Your task to perform on an android device: Search for sushi restaurants on Maps Image 0: 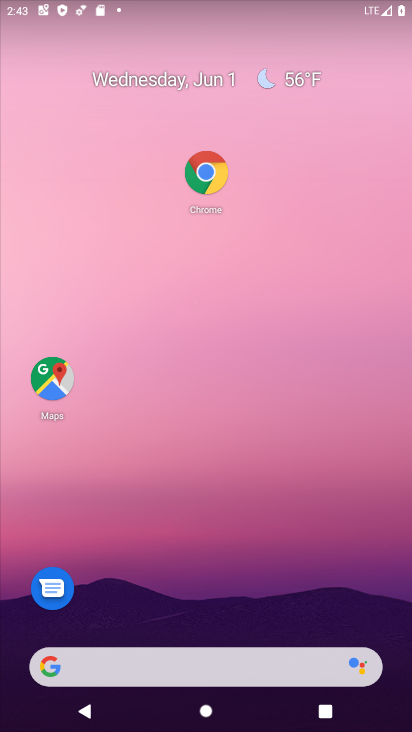
Step 0: drag from (230, 590) to (238, 59)
Your task to perform on an android device: Search for sushi restaurants on Maps Image 1: 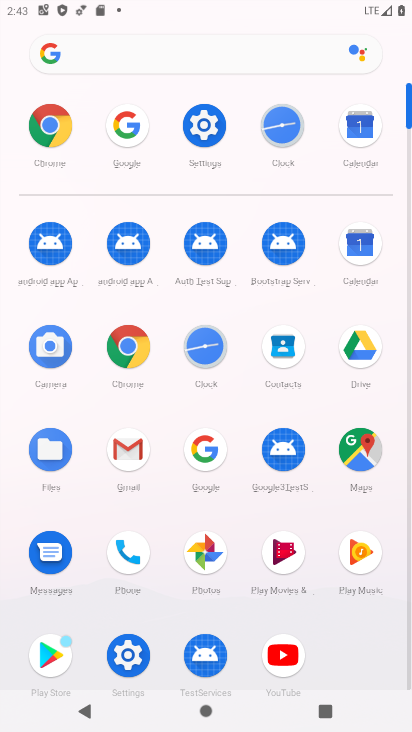
Step 1: click (354, 450)
Your task to perform on an android device: Search for sushi restaurants on Maps Image 2: 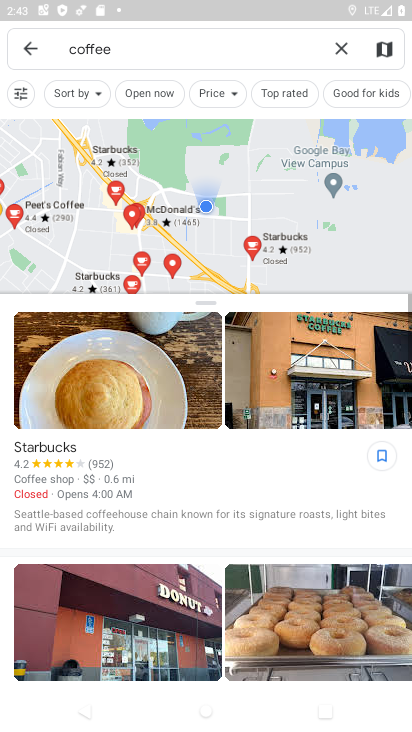
Step 2: click (342, 49)
Your task to perform on an android device: Search for sushi restaurants on Maps Image 3: 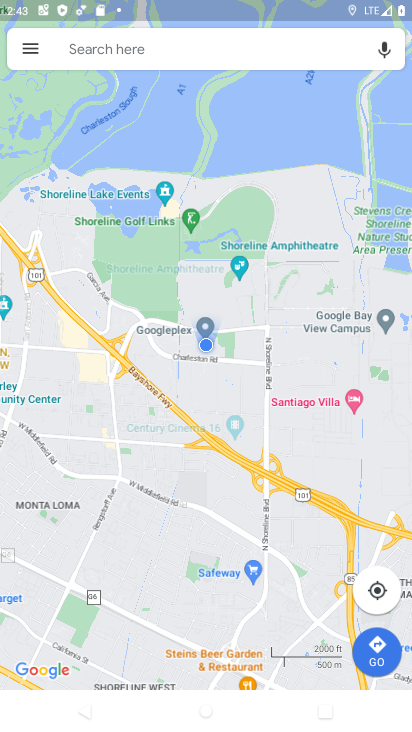
Step 3: click (222, 63)
Your task to perform on an android device: Search for sushi restaurants on Maps Image 4: 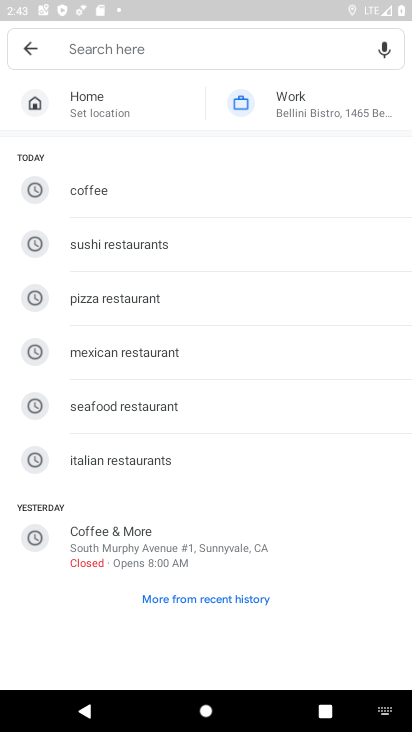
Step 4: click (133, 245)
Your task to perform on an android device: Search for sushi restaurants on Maps Image 5: 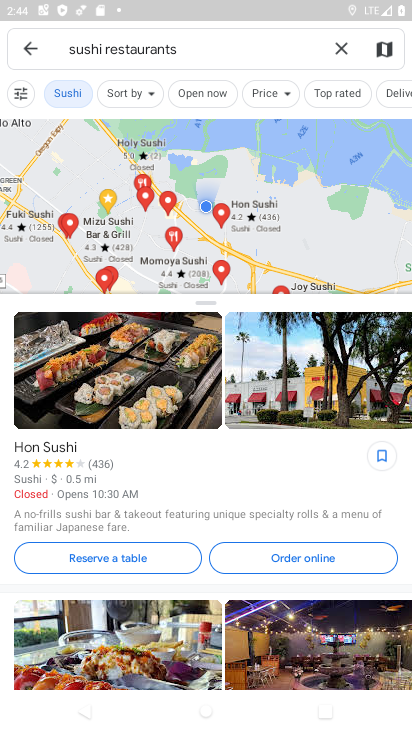
Step 5: task complete